Your task to perform on an android device: add a contact in the contacts app Image 0: 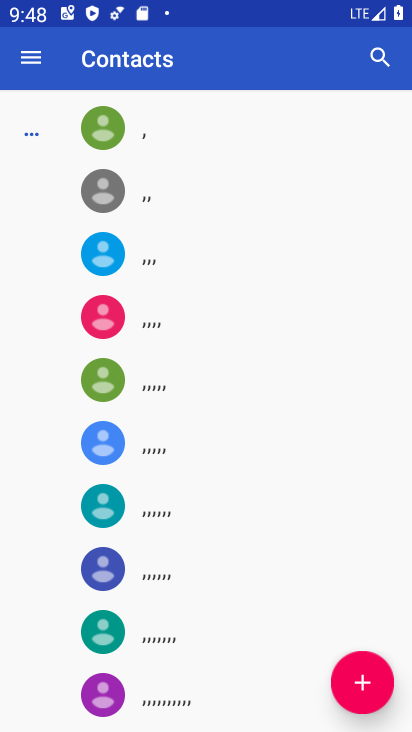
Step 0: press home button
Your task to perform on an android device: add a contact in the contacts app Image 1: 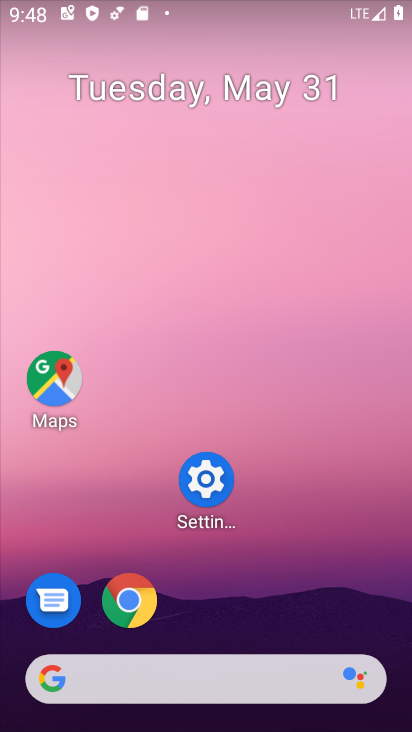
Step 1: drag from (297, 704) to (281, 308)
Your task to perform on an android device: add a contact in the contacts app Image 2: 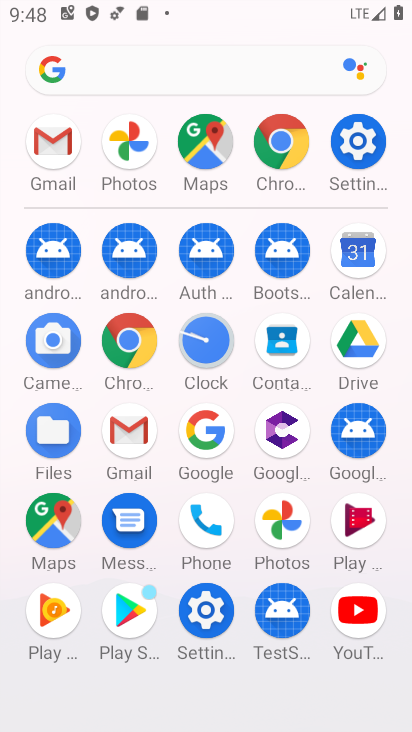
Step 2: click (201, 571)
Your task to perform on an android device: add a contact in the contacts app Image 3: 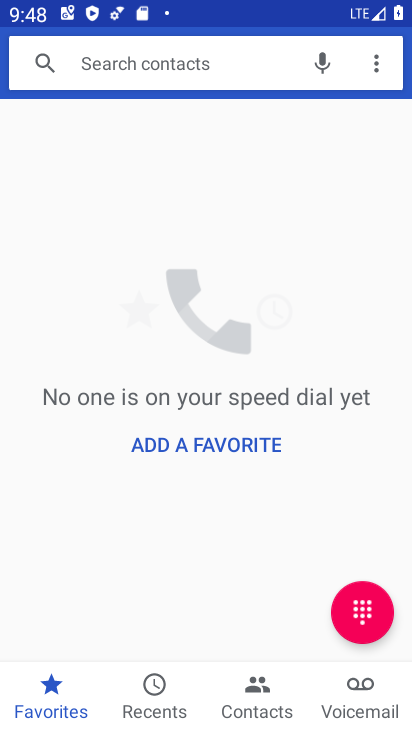
Step 3: click (262, 704)
Your task to perform on an android device: add a contact in the contacts app Image 4: 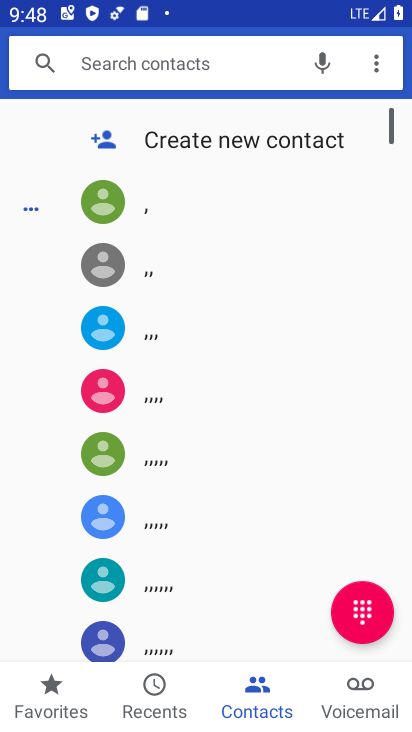
Step 4: click (228, 133)
Your task to perform on an android device: add a contact in the contacts app Image 5: 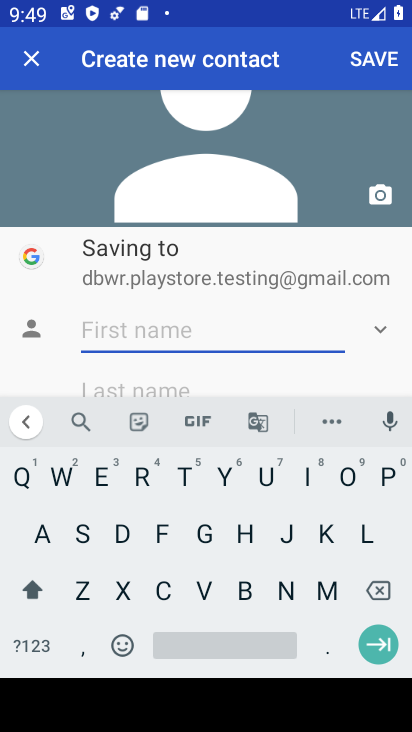
Step 5: click (202, 530)
Your task to perform on an android device: add a contact in the contacts app Image 6: 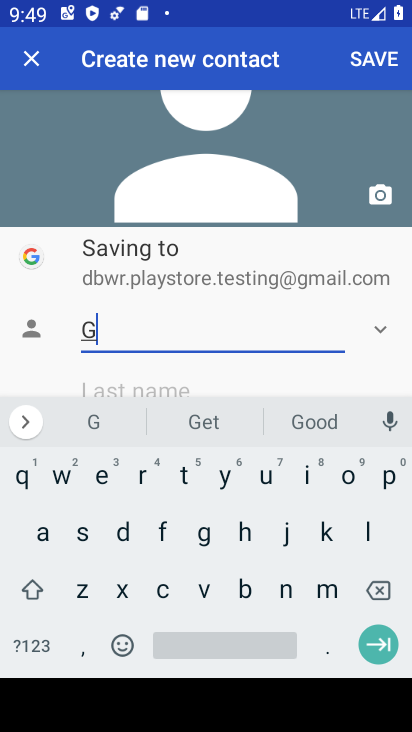
Step 6: click (123, 575)
Your task to perform on an android device: add a contact in the contacts app Image 7: 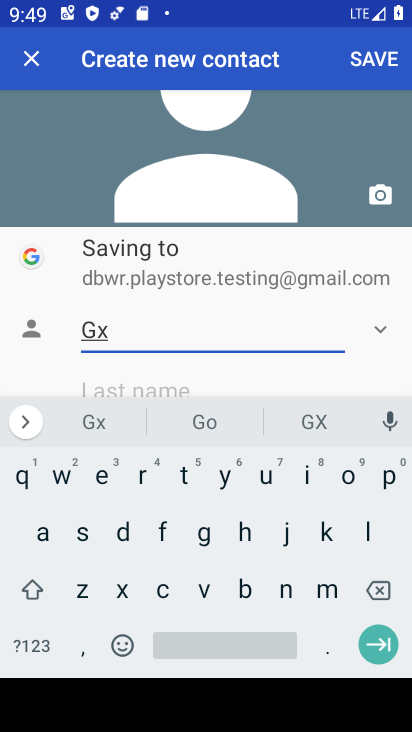
Step 7: click (257, 583)
Your task to perform on an android device: add a contact in the contacts app Image 8: 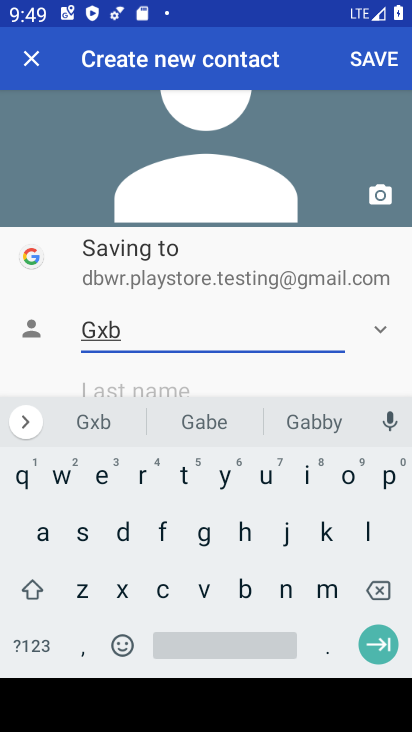
Step 8: drag from (206, 376) to (236, 116)
Your task to perform on an android device: add a contact in the contacts app Image 9: 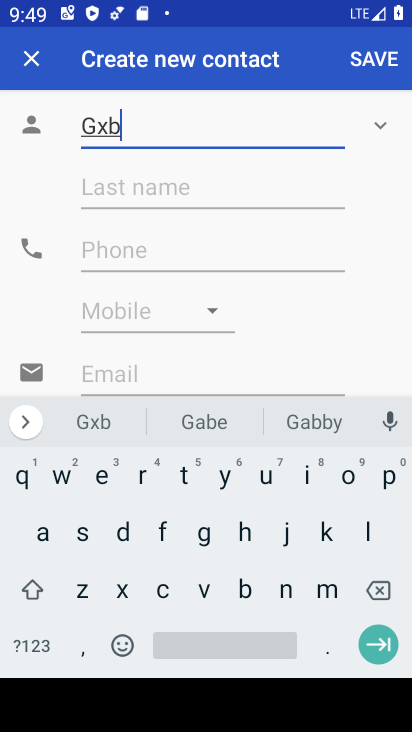
Step 9: click (121, 252)
Your task to perform on an android device: add a contact in the contacts app Image 10: 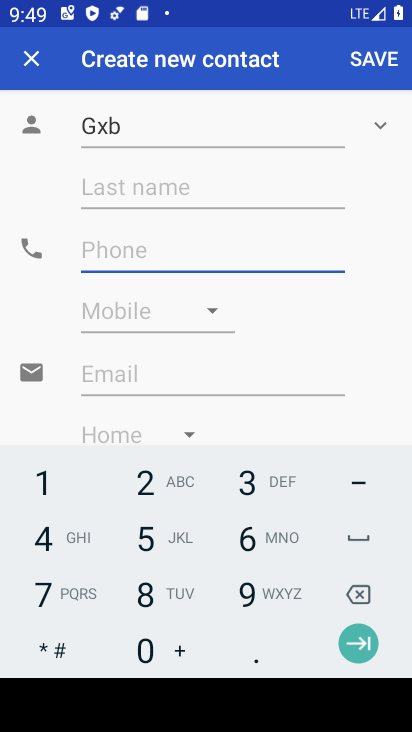
Step 10: click (164, 527)
Your task to perform on an android device: add a contact in the contacts app Image 11: 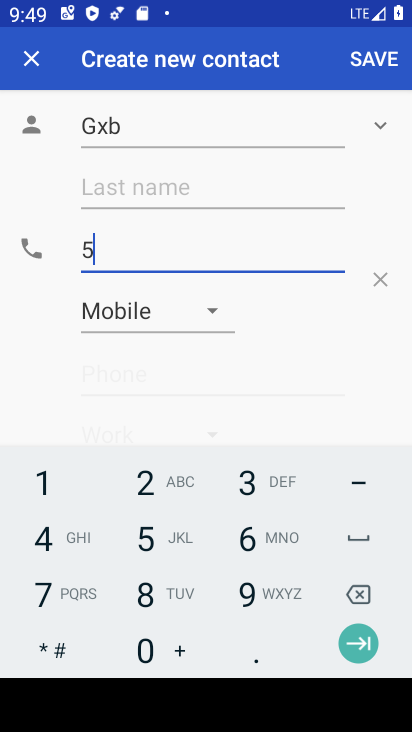
Step 11: drag from (164, 529) to (124, 541)
Your task to perform on an android device: add a contact in the contacts app Image 12: 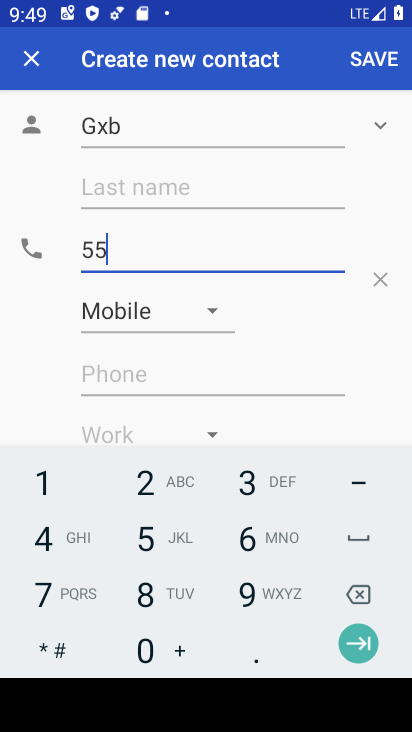
Step 12: click (145, 556)
Your task to perform on an android device: add a contact in the contacts app Image 13: 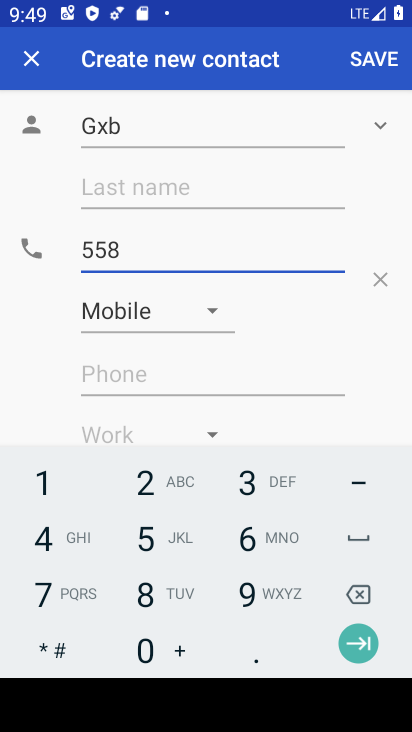
Step 13: drag from (221, 544) to (300, 525)
Your task to perform on an android device: add a contact in the contacts app Image 14: 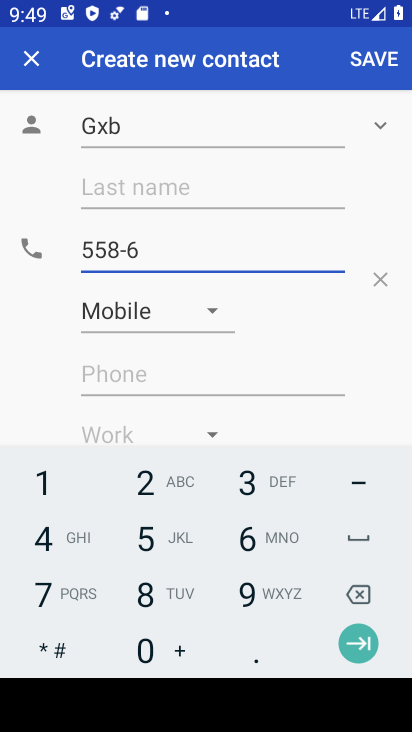
Step 14: click (241, 551)
Your task to perform on an android device: add a contact in the contacts app Image 15: 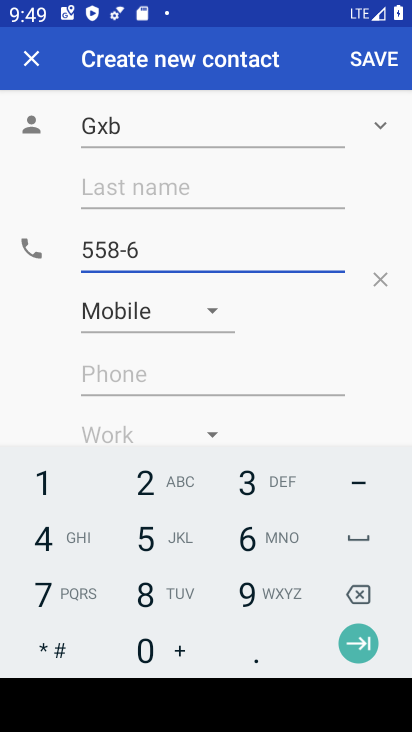
Step 15: click (241, 551)
Your task to perform on an android device: add a contact in the contacts app Image 16: 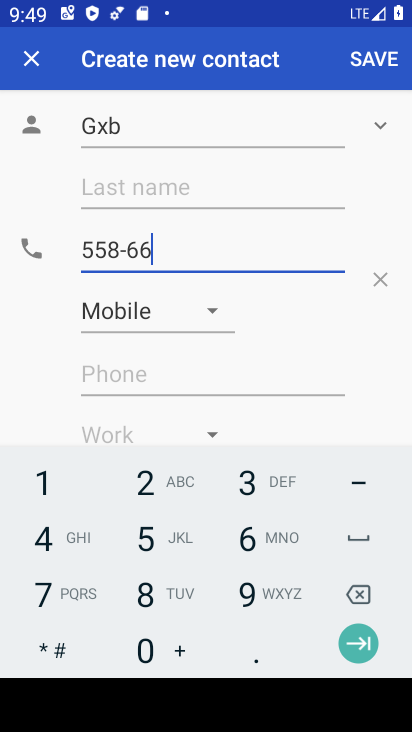
Step 16: click (241, 551)
Your task to perform on an android device: add a contact in the contacts app Image 17: 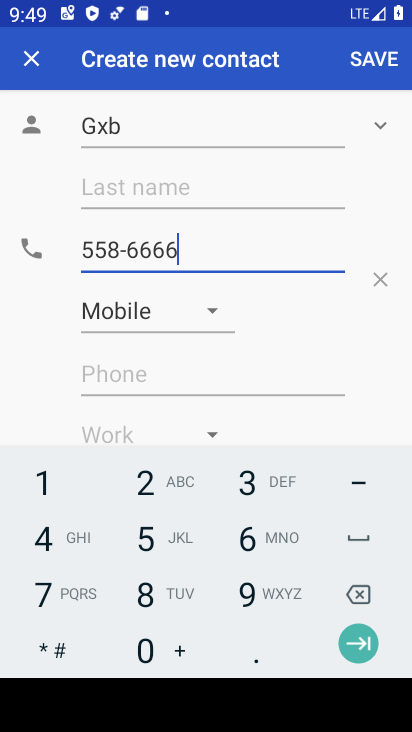
Step 17: click (367, 61)
Your task to perform on an android device: add a contact in the contacts app Image 18: 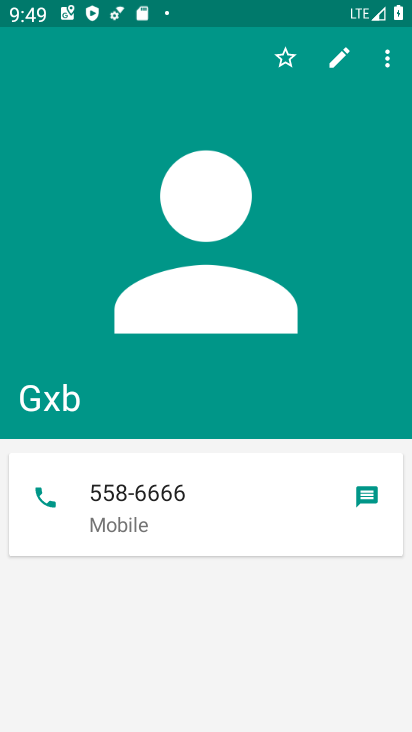
Step 18: task complete